Your task to perform on an android device: change notifications settings Image 0: 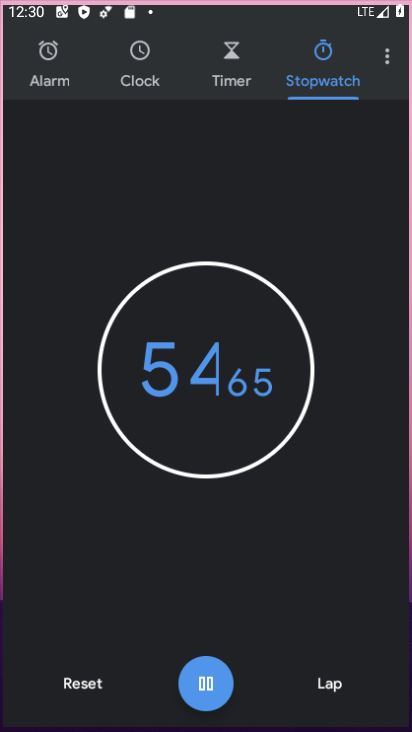
Step 0: drag from (222, 632) to (260, 385)
Your task to perform on an android device: change notifications settings Image 1: 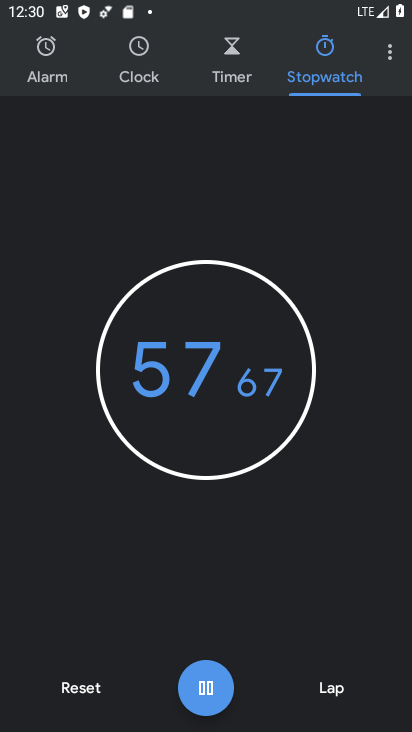
Step 1: click (72, 685)
Your task to perform on an android device: change notifications settings Image 2: 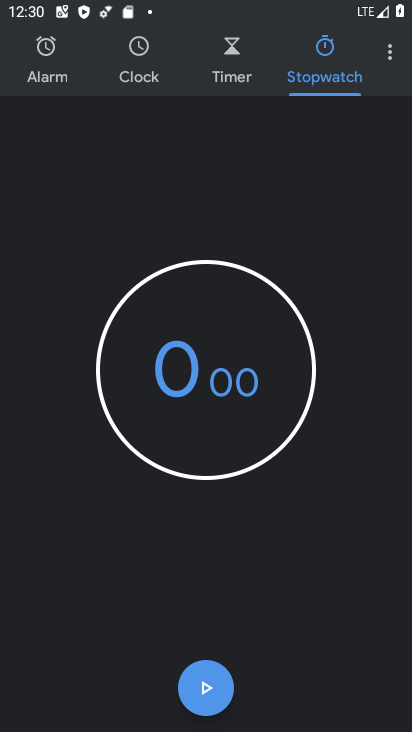
Step 2: press home button
Your task to perform on an android device: change notifications settings Image 3: 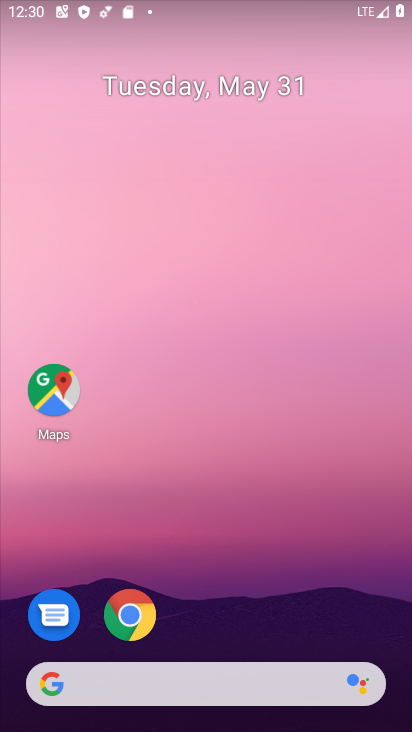
Step 3: drag from (201, 571) to (265, 13)
Your task to perform on an android device: change notifications settings Image 4: 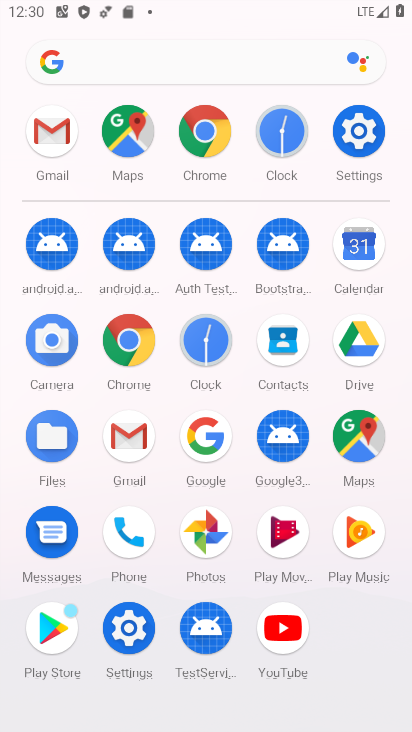
Step 4: click (362, 134)
Your task to perform on an android device: change notifications settings Image 5: 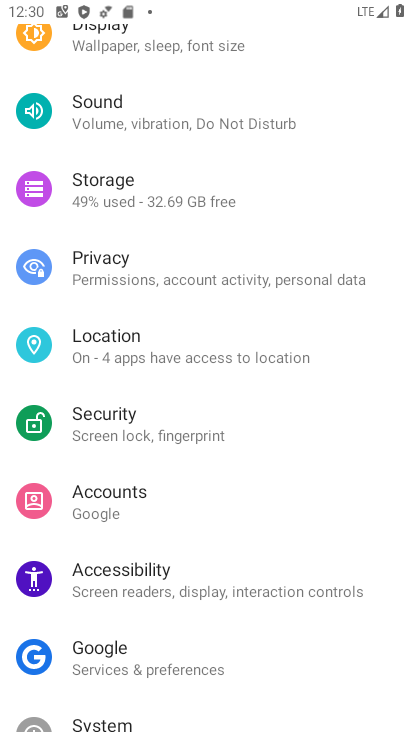
Step 5: drag from (196, 196) to (195, 617)
Your task to perform on an android device: change notifications settings Image 6: 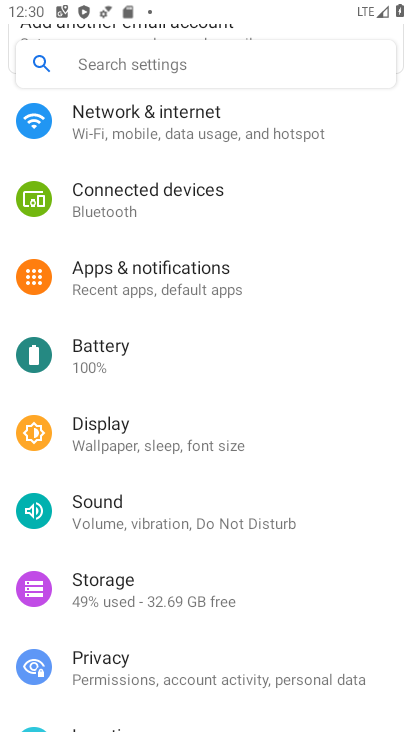
Step 6: click (188, 269)
Your task to perform on an android device: change notifications settings Image 7: 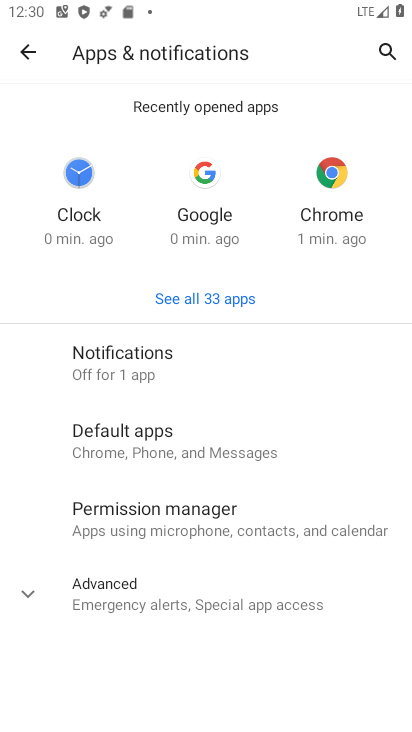
Step 7: click (149, 375)
Your task to perform on an android device: change notifications settings Image 8: 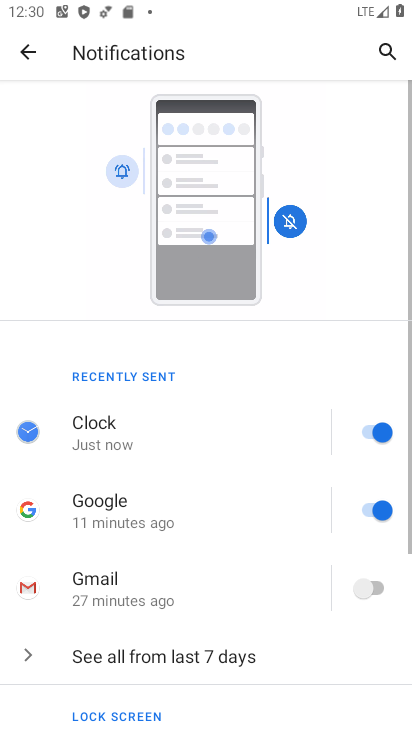
Step 8: drag from (159, 538) to (211, 224)
Your task to perform on an android device: change notifications settings Image 9: 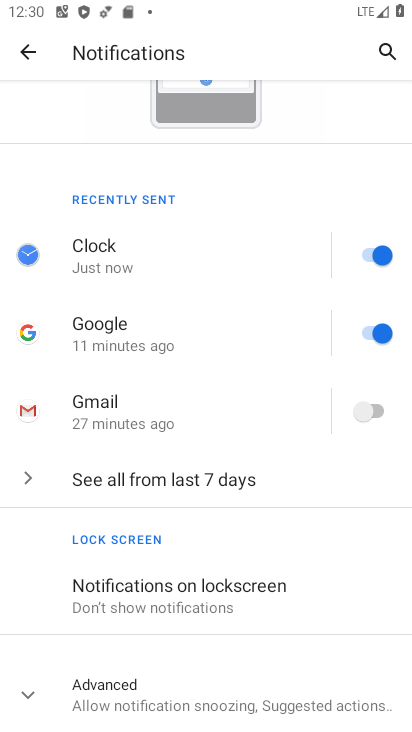
Step 9: click (151, 485)
Your task to perform on an android device: change notifications settings Image 10: 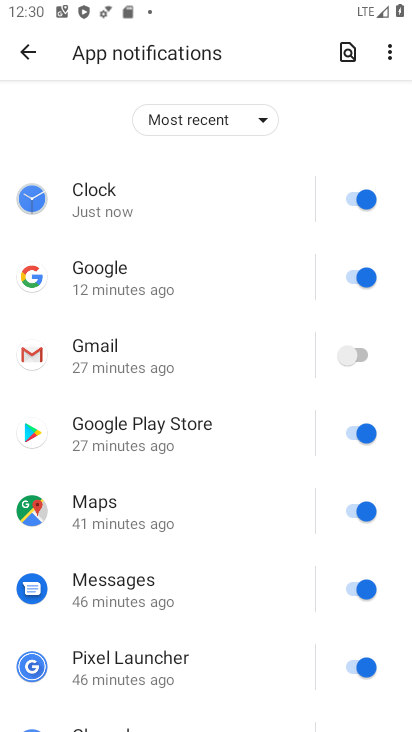
Step 10: click (348, 216)
Your task to perform on an android device: change notifications settings Image 11: 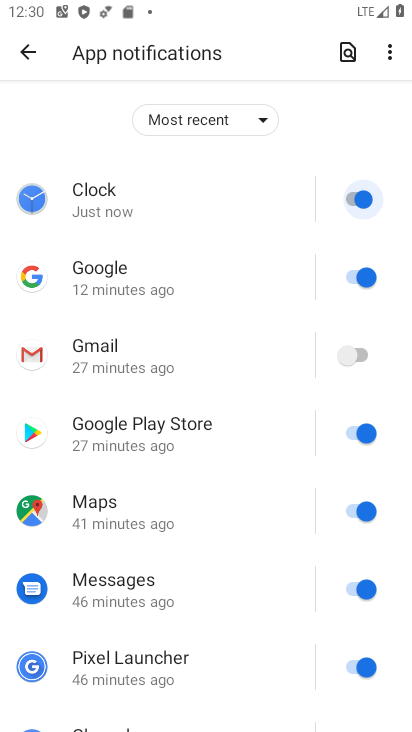
Step 11: click (339, 270)
Your task to perform on an android device: change notifications settings Image 12: 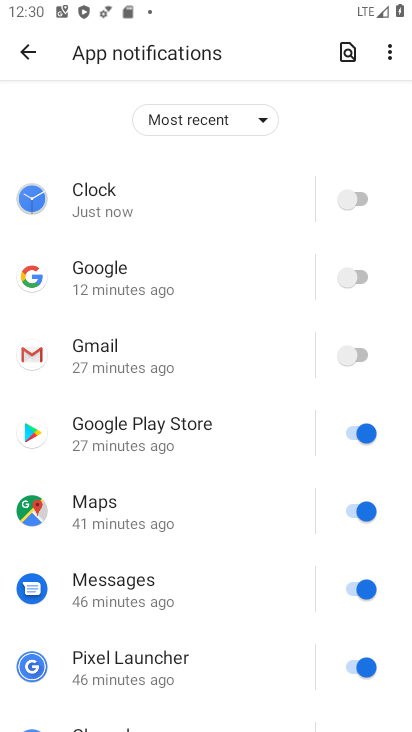
Step 12: click (346, 430)
Your task to perform on an android device: change notifications settings Image 13: 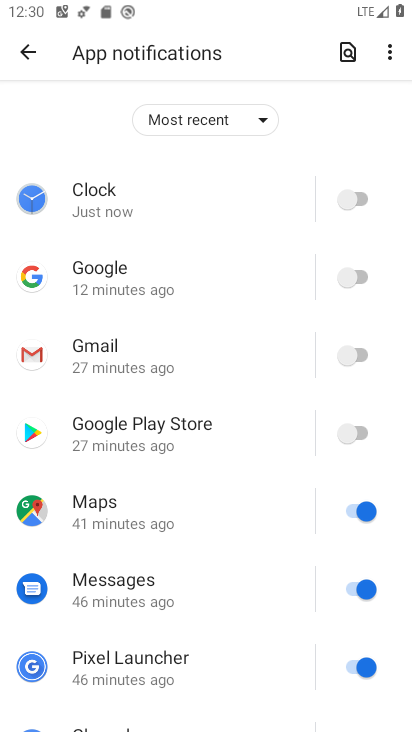
Step 13: click (344, 515)
Your task to perform on an android device: change notifications settings Image 14: 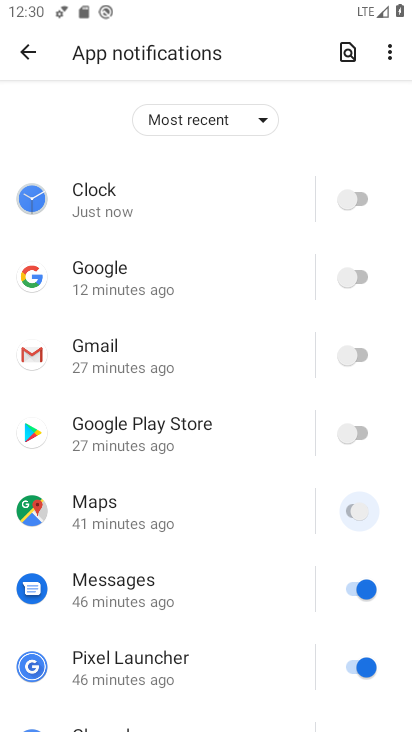
Step 14: click (347, 590)
Your task to perform on an android device: change notifications settings Image 15: 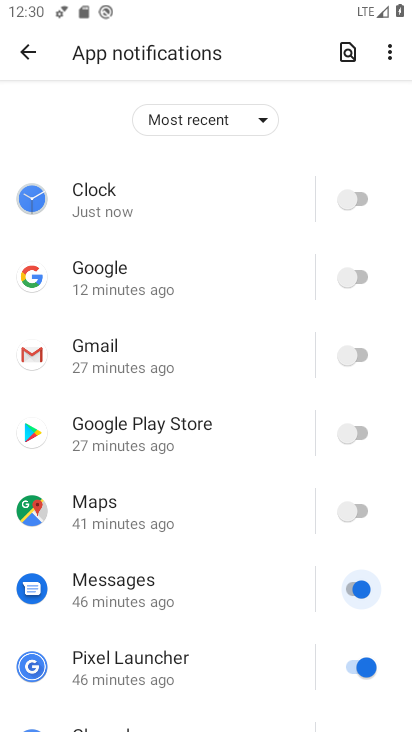
Step 15: click (347, 654)
Your task to perform on an android device: change notifications settings Image 16: 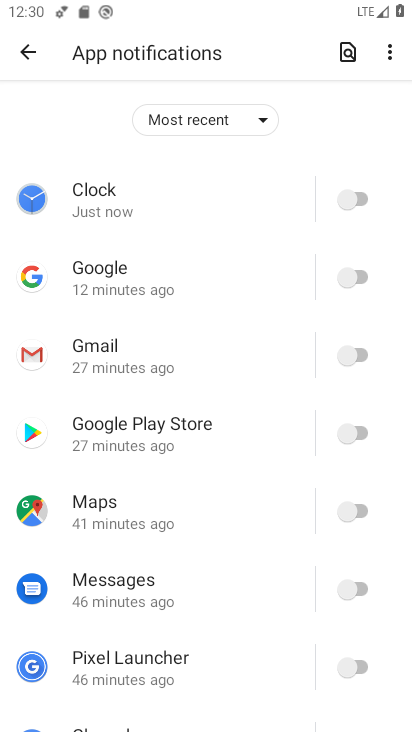
Step 16: drag from (225, 638) to (256, 117)
Your task to perform on an android device: change notifications settings Image 17: 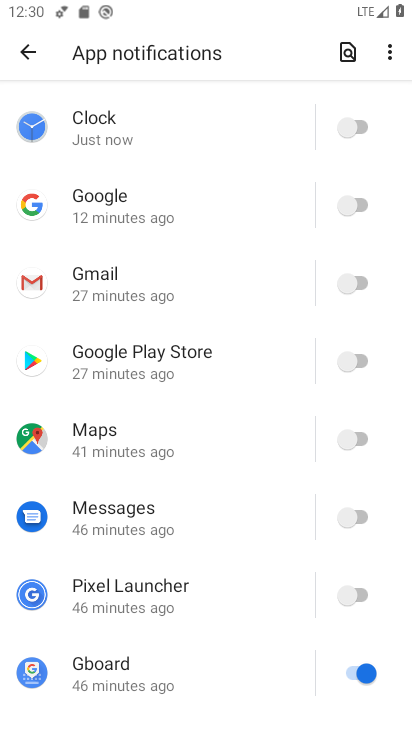
Step 17: click (349, 674)
Your task to perform on an android device: change notifications settings Image 18: 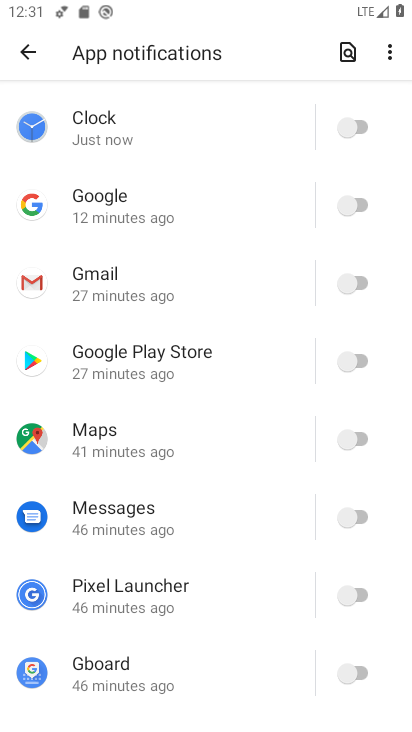
Step 18: task complete